Your task to perform on an android device: delete browsing data in the chrome app Image 0: 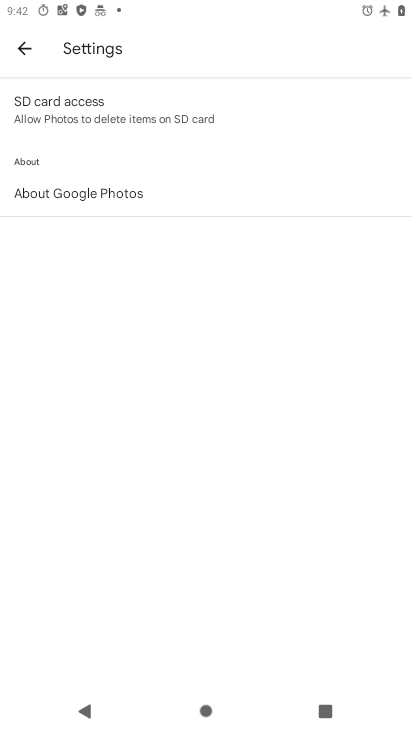
Step 0: press home button
Your task to perform on an android device: delete browsing data in the chrome app Image 1: 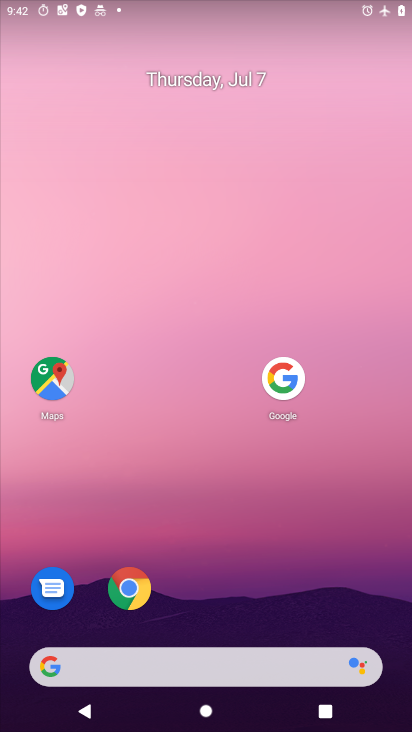
Step 1: click (136, 594)
Your task to perform on an android device: delete browsing data in the chrome app Image 2: 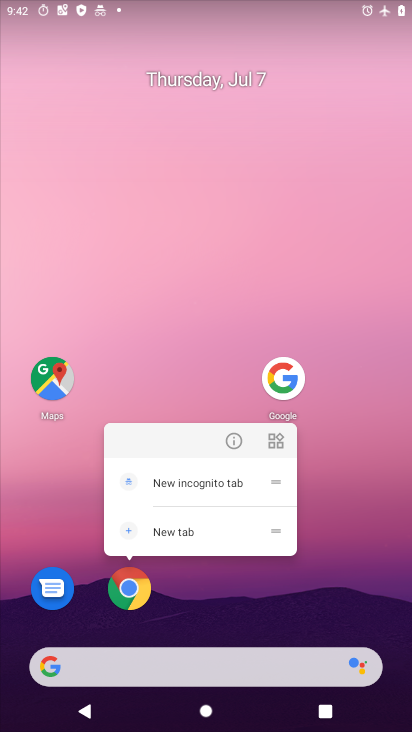
Step 2: click (124, 585)
Your task to perform on an android device: delete browsing data in the chrome app Image 3: 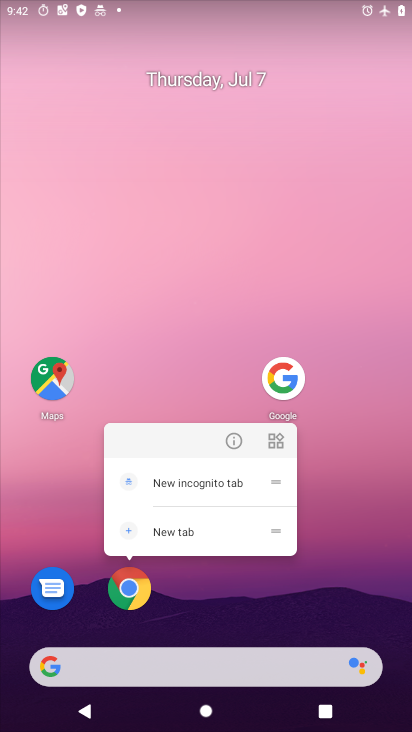
Step 3: click (126, 589)
Your task to perform on an android device: delete browsing data in the chrome app Image 4: 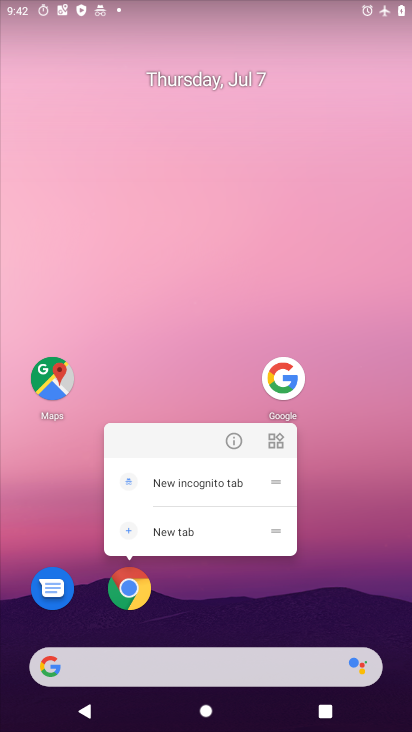
Step 4: click (131, 590)
Your task to perform on an android device: delete browsing data in the chrome app Image 5: 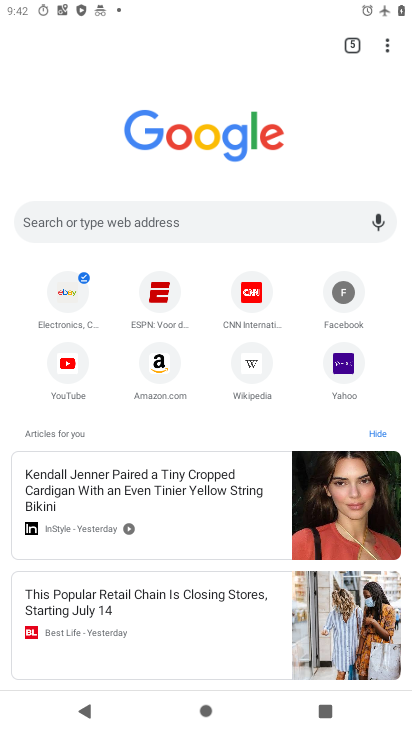
Step 5: drag from (387, 48) to (241, 376)
Your task to perform on an android device: delete browsing data in the chrome app Image 6: 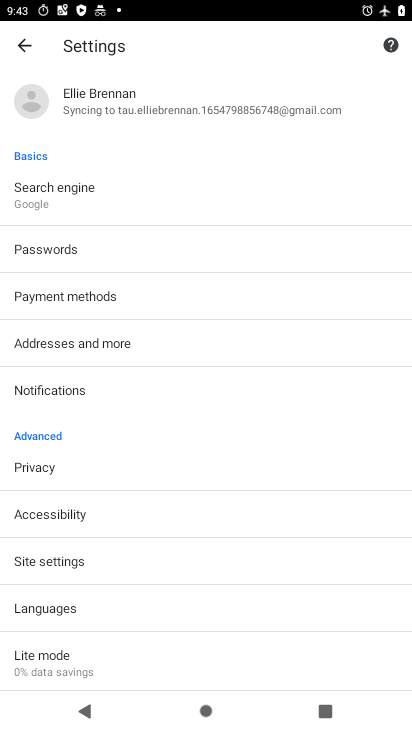
Step 6: click (35, 464)
Your task to perform on an android device: delete browsing data in the chrome app Image 7: 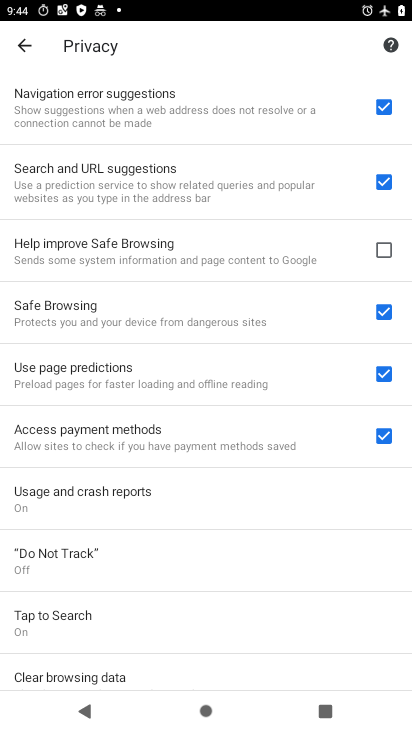
Step 7: drag from (167, 584) to (303, 184)
Your task to perform on an android device: delete browsing data in the chrome app Image 8: 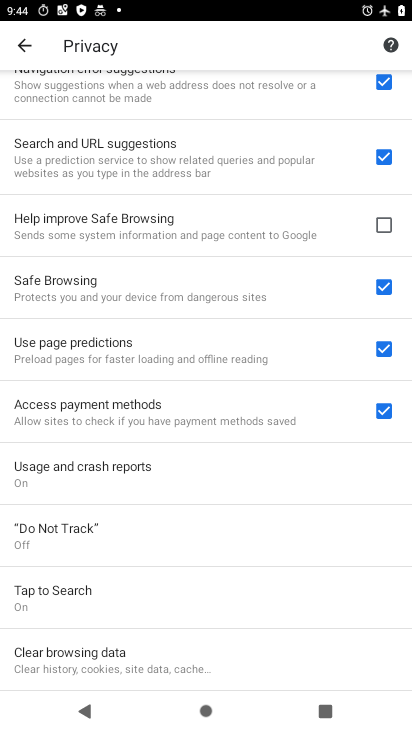
Step 8: click (125, 645)
Your task to perform on an android device: delete browsing data in the chrome app Image 9: 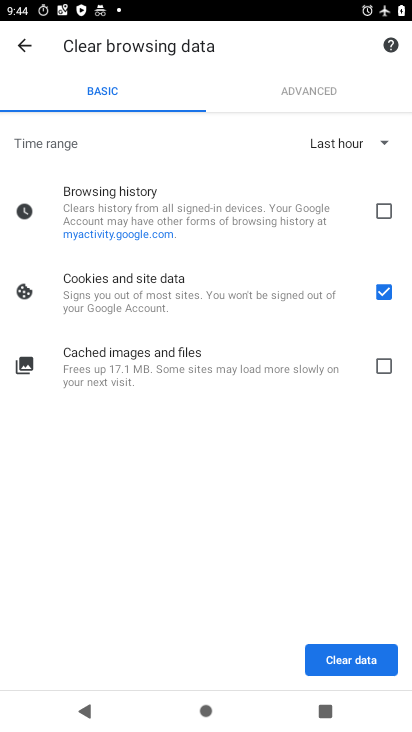
Step 9: click (392, 208)
Your task to perform on an android device: delete browsing data in the chrome app Image 10: 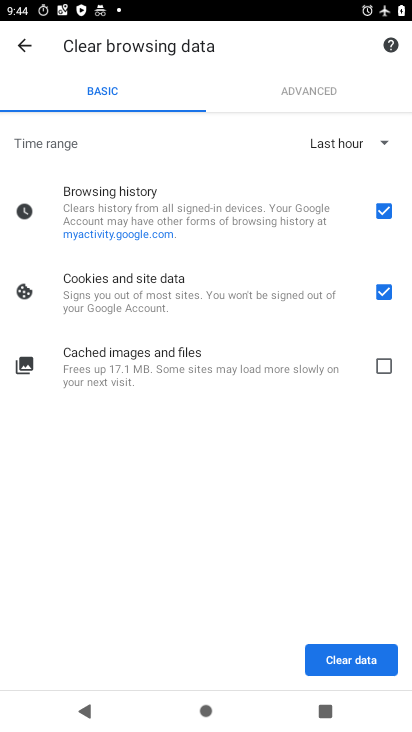
Step 10: click (388, 286)
Your task to perform on an android device: delete browsing data in the chrome app Image 11: 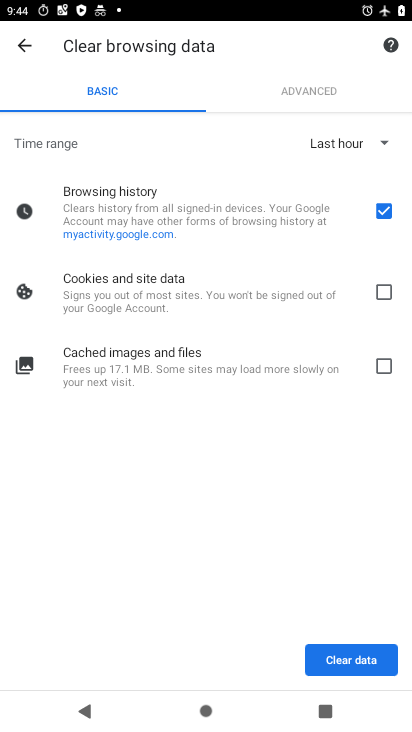
Step 11: click (336, 658)
Your task to perform on an android device: delete browsing data in the chrome app Image 12: 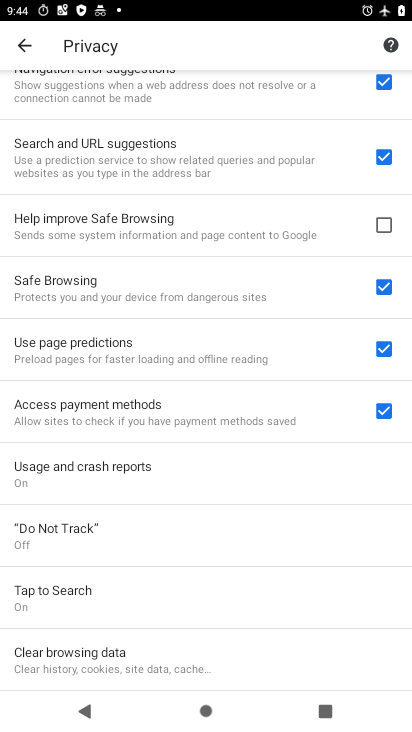
Step 12: task complete